Your task to perform on an android device: delete the emails in spam in the gmail app Image 0: 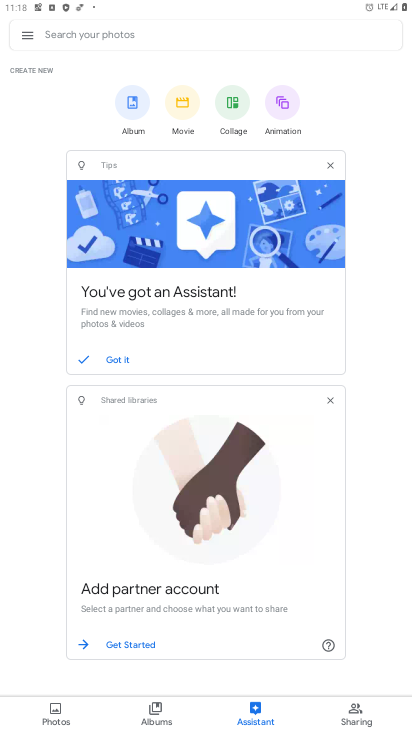
Step 0: press home button
Your task to perform on an android device: delete the emails in spam in the gmail app Image 1: 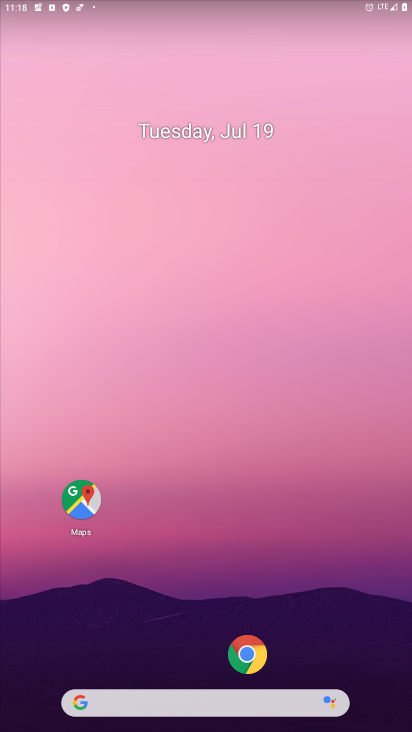
Step 1: drag from (139, 676) to (202, 120)
Your task to perform on an android device: delete the emails in spam in the gmail app Image 2: 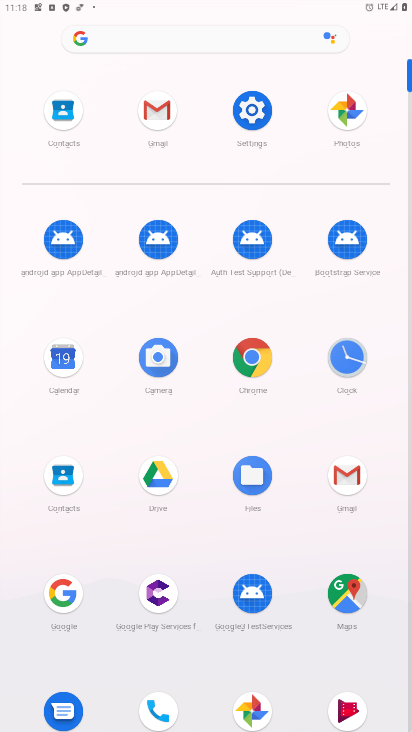
Step 2: click (173, 112)
Your task to perform on an android device: delete the emails in spam in the gmail app Image 3: 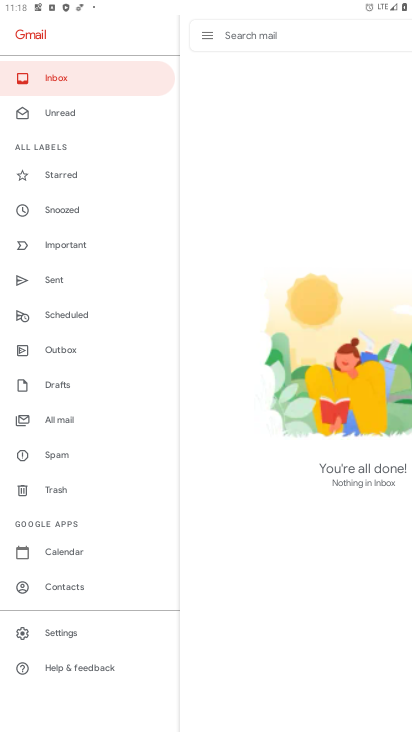
Step 3: click (82, 459)
Your task to perform on an android device: delete the emails in spam in the gmail app Image 4: 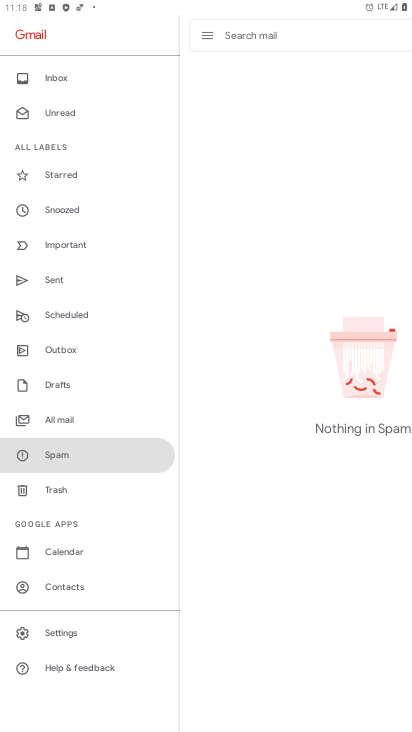
Step 4: task complete